Your task to perform on an android device: toggle notifications settings in the gmail app Image 0: 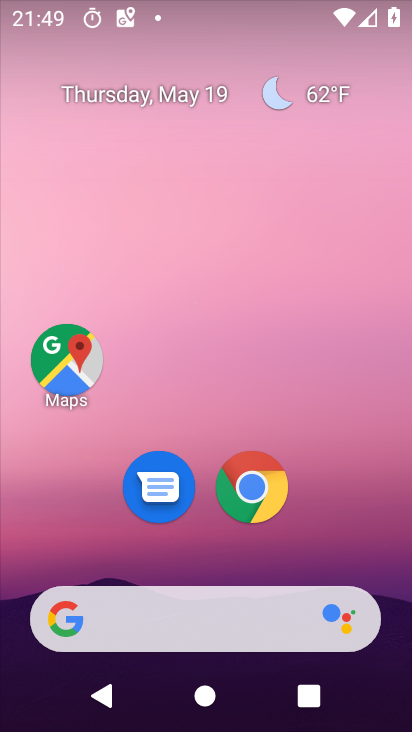
Step 0: drag from (214, 560) to (201, 183)
Your task to perform on an android device: toggle notifications settings in the gmail app Image 1: 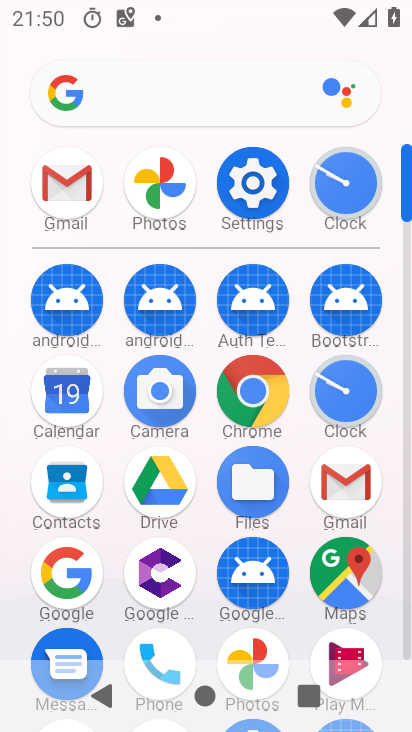
Step 1: click (84, 195)
Your task to perform on an android device: toggle notifications settings in the gmail app Image 2: 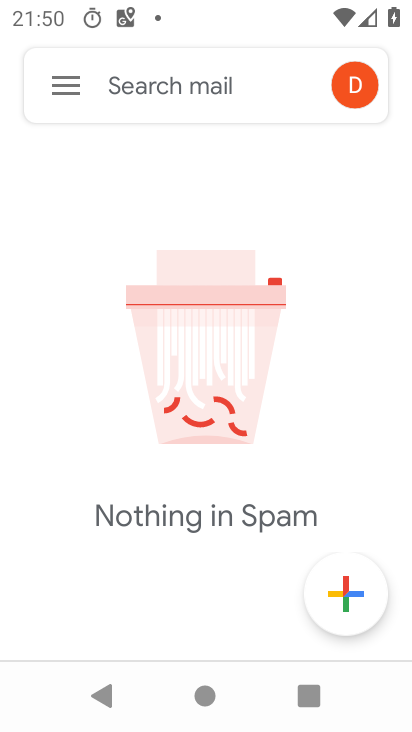
Step 2: click (65, 85)
Your task to perform on an android device: toggle notifications settings in the gmail app Image 3: 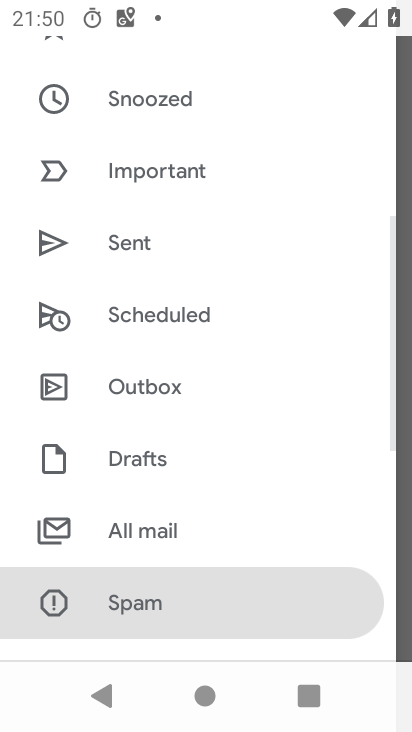
Step 3: drag from (243, 540) to (247, 135)
Your task to perform on an android device: toggle notifications settings in the gmail app Image 4: 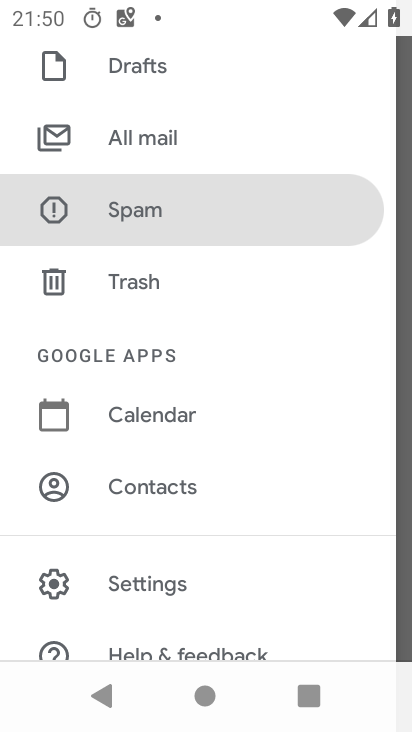
Step 4: click (159, 574)
Your task to perform on an android device: toggle notifications settings in the gmail app Image 5: 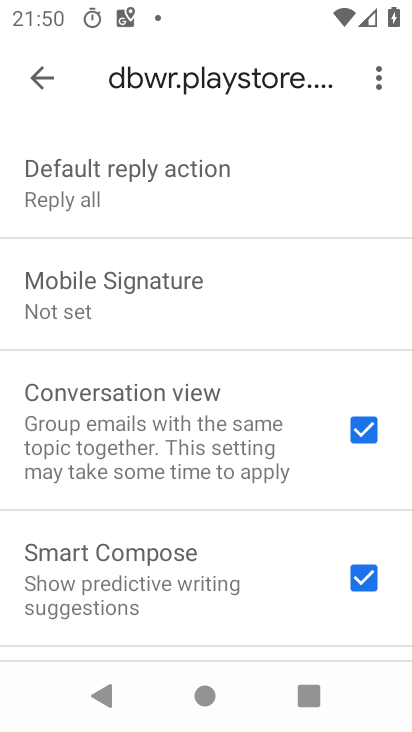
Step 5: drag from (224, 203) to (214, 489)
Your task to perform on an android device: toggle notifications settings in the gmail app Image 6: 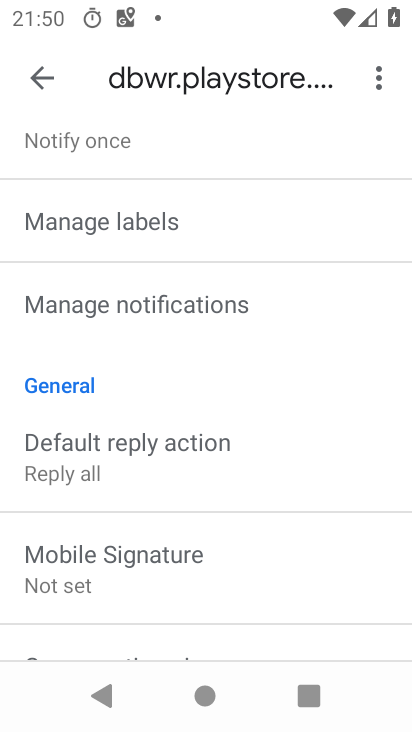
Step 6: click (201, 309)
Your task to perform on an android device: toggle notifications settings in the gmail app Image 7: 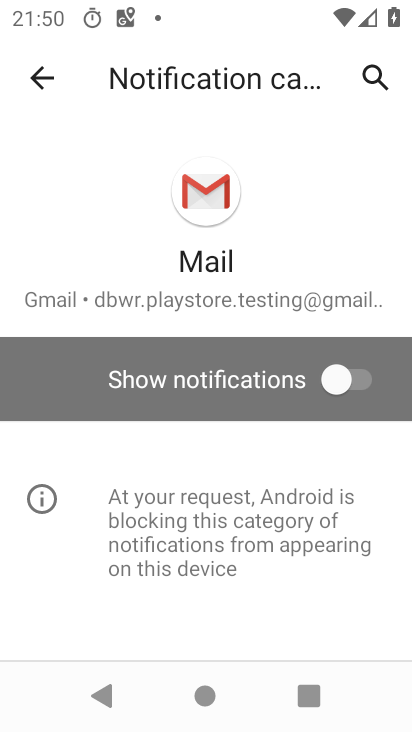
Step 7: click (357, 381)
Your task to perform on an android device: toggle notifications settings in the gmail app Image 8: 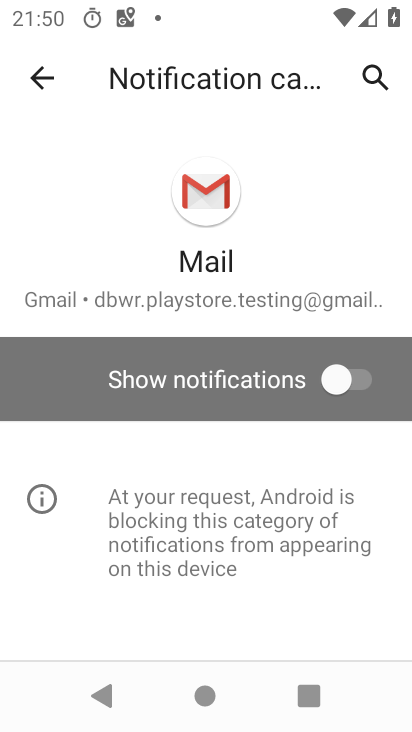
Step 8: click (357, 381)
Your task to perform on an android device: toggle notifications settings in the gmail app Image 9: 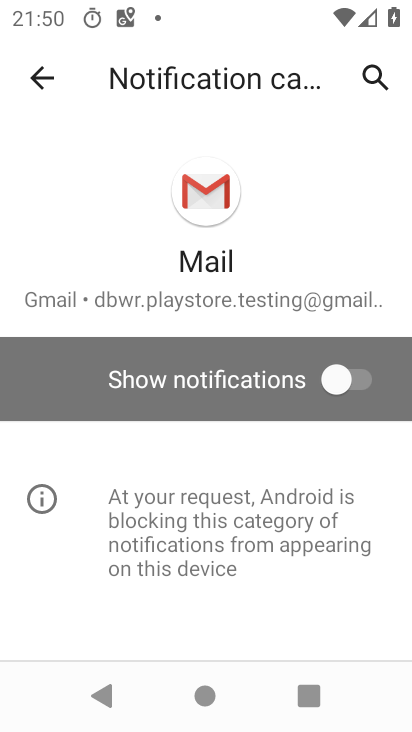
Step 9: click (368, 380)
Your task to perform on an android device: toggle notifications settings in the gmail app Image 10: 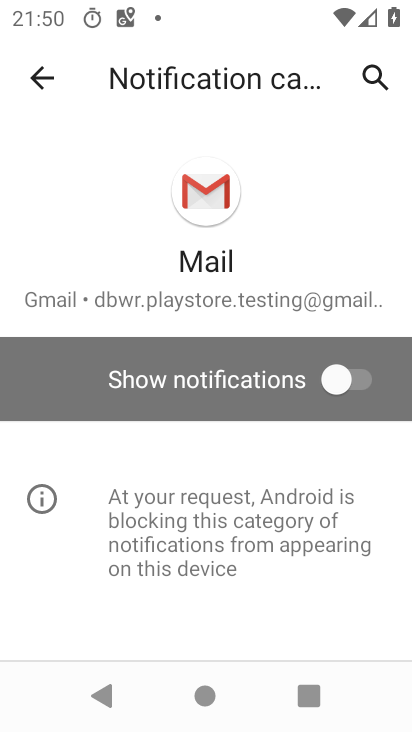
Step 10: click (368, 380)
Your task to perform on an android device: toggle notifications settings in the gmail app Image 11: 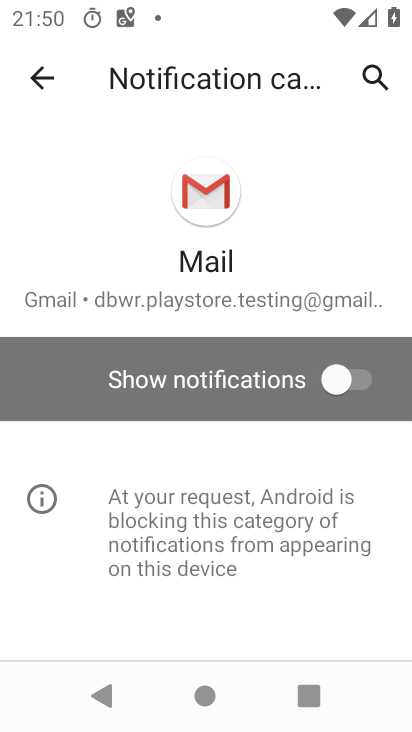
Step 11: click (368, 380)
Your task to perform on an android device: toggle notifications settings in the gmail app Image 12: 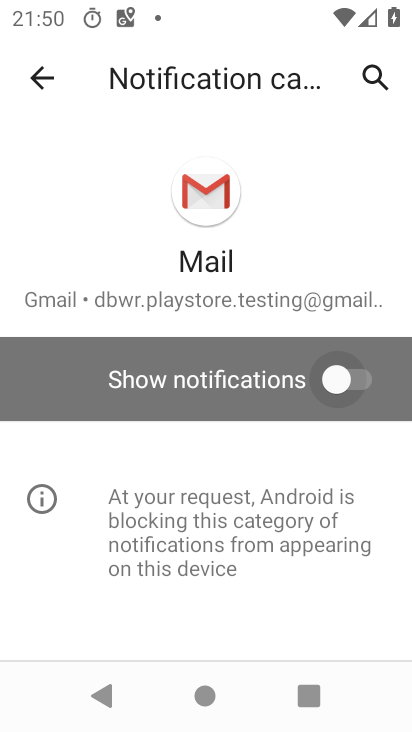
Step 12: click (368, 380)
Your task to perform on an android device: toggle notifications settings in the gmail app Image 13: 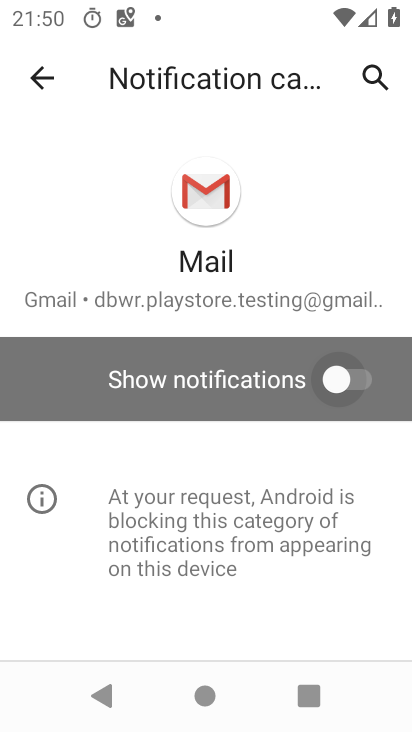
Step 13: click (368, 380)
Your task to perform on an android device: toggle notifications settings in the gmail app Image 14: 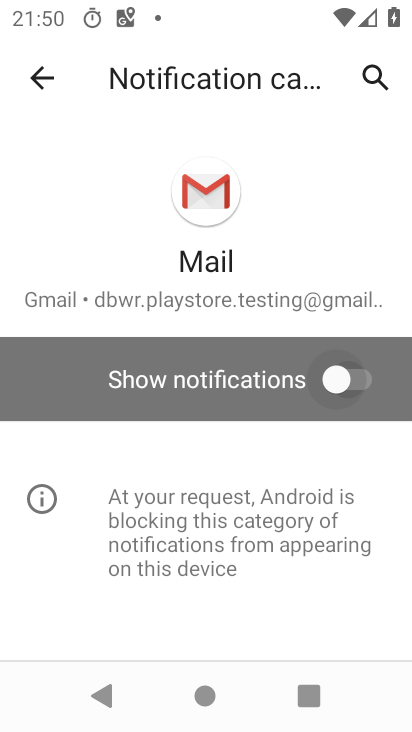
Step 14: click (368, 380)
Your task to perform on an android device: toggle notifications settings in the gmail app Image 15: 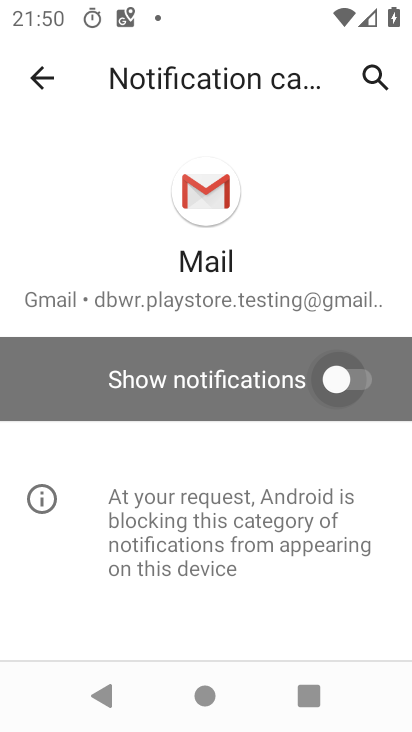
Step 15: click (368, 380)
Your task to perform on an android device: toggle notifications settings in the gmail app Image 16: 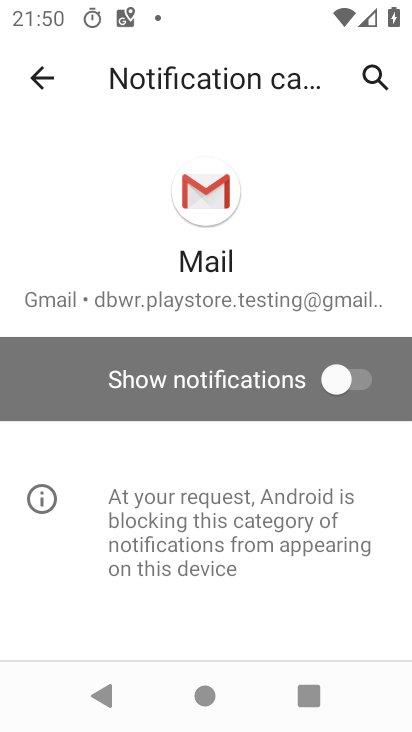
Step 16: click (61, 76)
Your task to perform on an android device: toggle notifications settings in the gmail app Image 17: 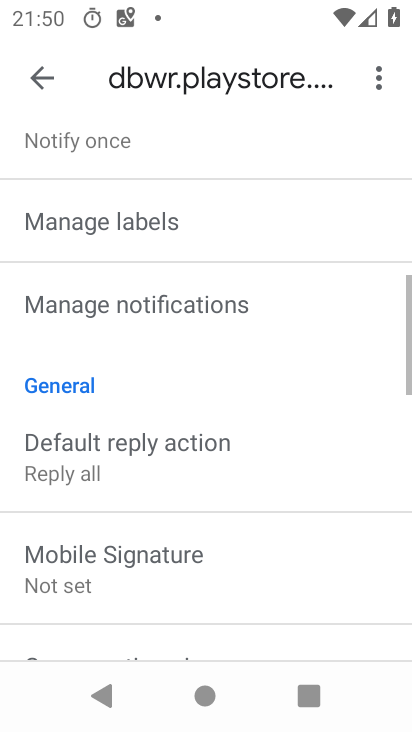
Step 17: click (61, 76)
Your task to perform on an android device: toggle notifications settings in the gmail app Image 18: 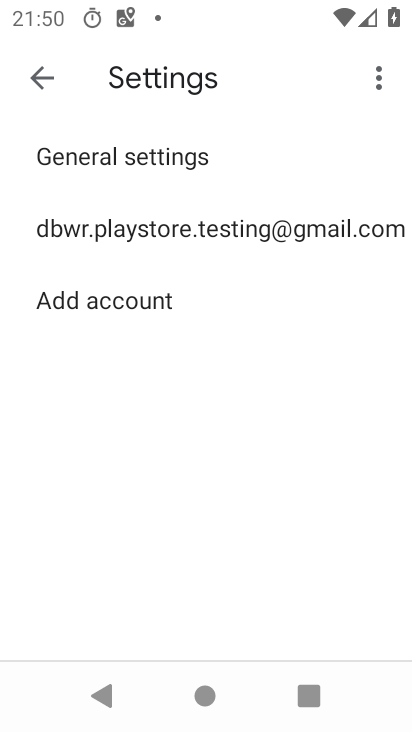
Step 18: click (124, 144)
Your task to perform on an android device: toggle notifications settings in the gmail app Image 19: 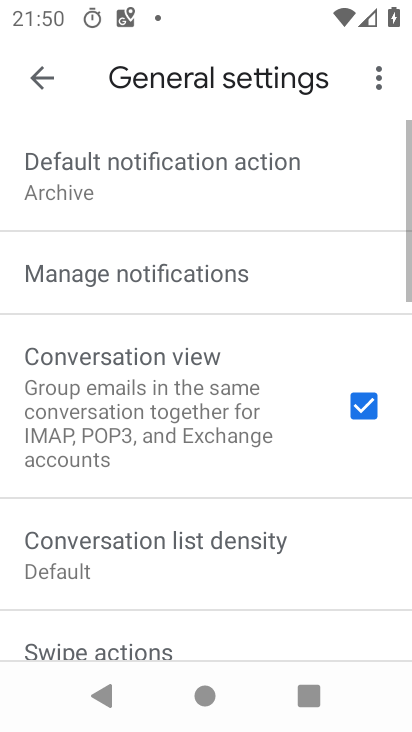
Step 19: click (157, 273)
Your task to perform on an android device: toggle notifications settings in the gmail app Image 20: 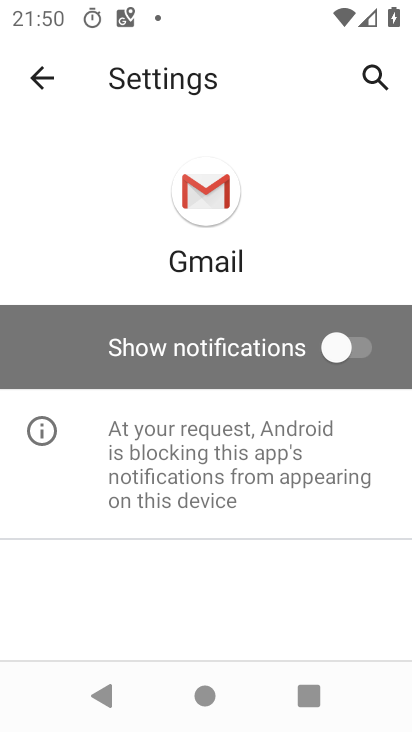
Step 20: click (360, 343)
Your task to perform on an android device: toggle notifications settings in the gmail app Image 21: 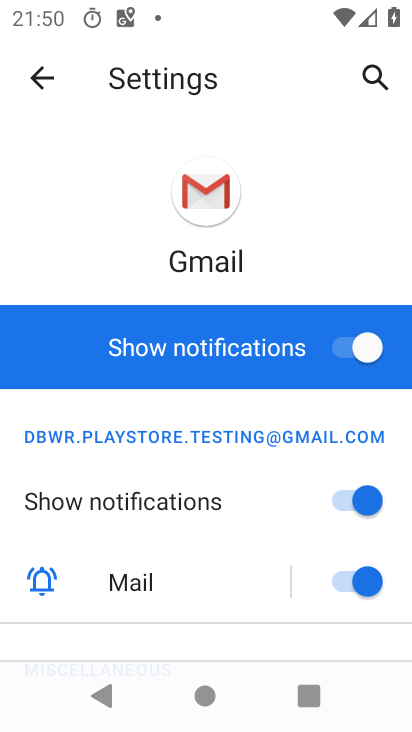
Step 21: task complete